Your task to perform on an android device: turn smart compose on in the gmail app Image 0: 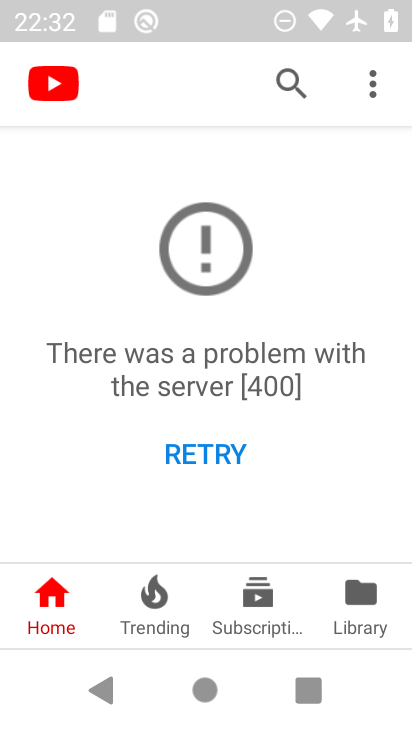
Step 0: press home button
Your task to perform on an android device: turn smart compose on in the gmail app Image 1: 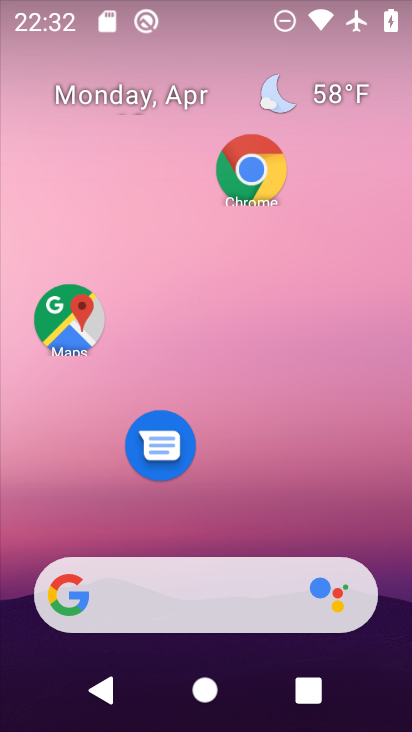
Step 1: drag from (212, 537) to (204, 181)
Your task to perform on an android device: turn smart compose on in the gmail app Image 2: 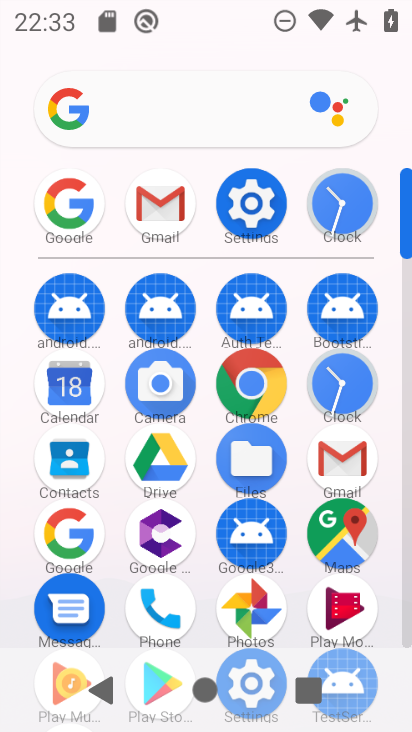
Step 2: click (161, 219)
Your task to perform on an android device: turn smart compose on in the gmail app Image 3: 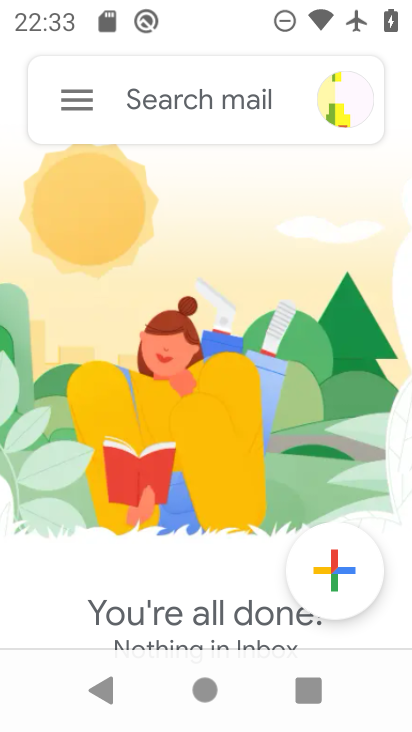
Step 3: click (64, 95)
Your task to perform on an android device: turn smart compose on in the gmail app Image 4: 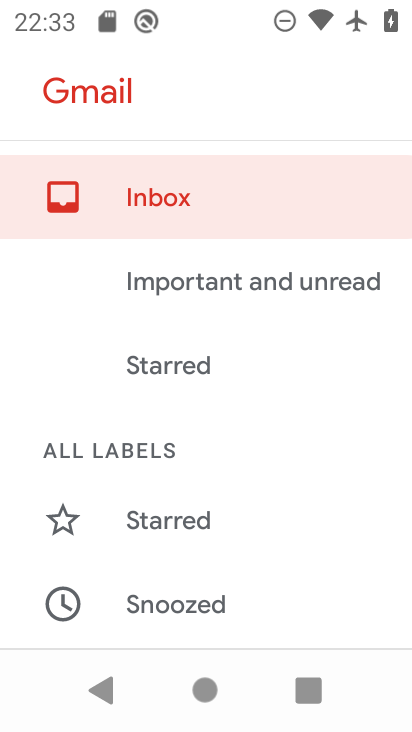
Step 4: drag from (215, 426) to (219, 180)
Your task to perform on an android device: turn smart compose on in the gmail app Image 5: 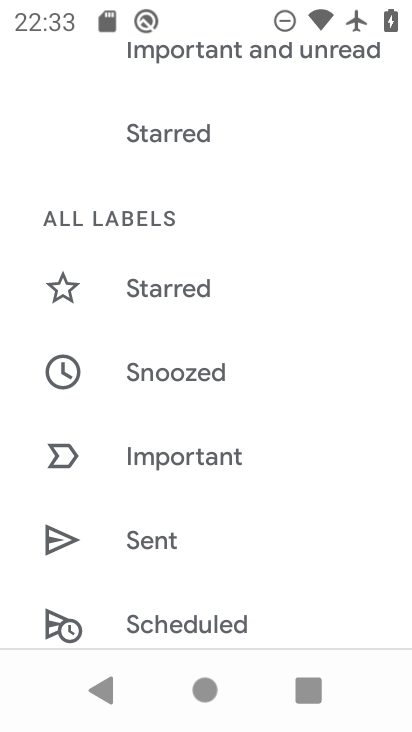
Step 5: drag from (234, 489) to (270, 217)
Your task to perform on an android device: turn smart compose on in the gmail app Image 6: 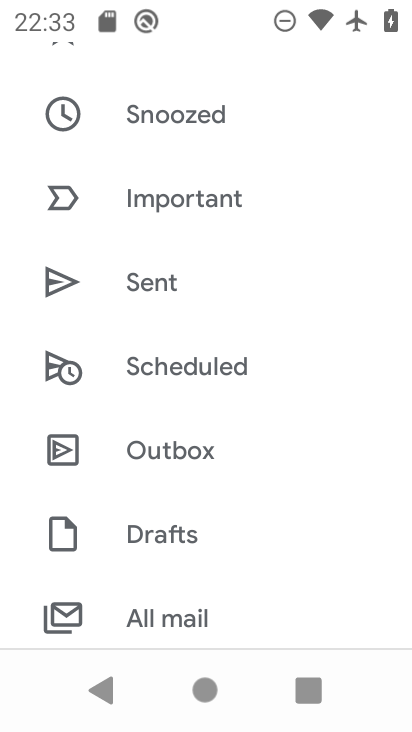
Step 6: drag from (260, 496) to (269, 243)
Your task to perform on an android device: turn smart compose on in the gmail app Image 7: 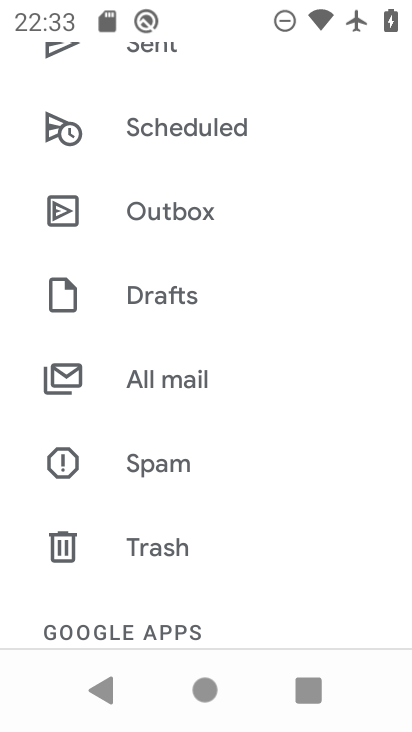
Step 7: drag from (228, 543) to (237, 242)
Your task to perform on an android device: turn smart compose on in the gmail app Image 8: 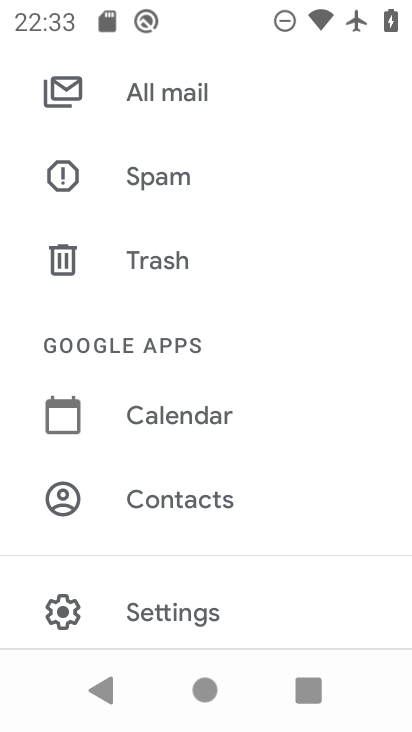
Step 8: click (221, 598)
Your task to perform on an android device: turn smart compose on in the gmail app Image 9: 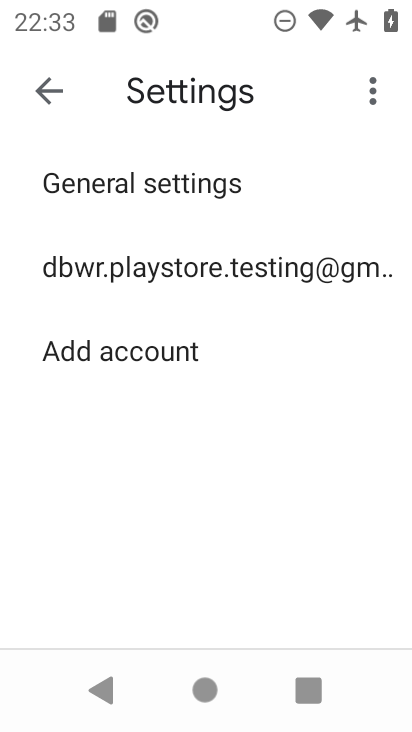
Step 9: click (225, 278)
Your task to perform on an android device: turn smart compose on in the gmail app Image 10: 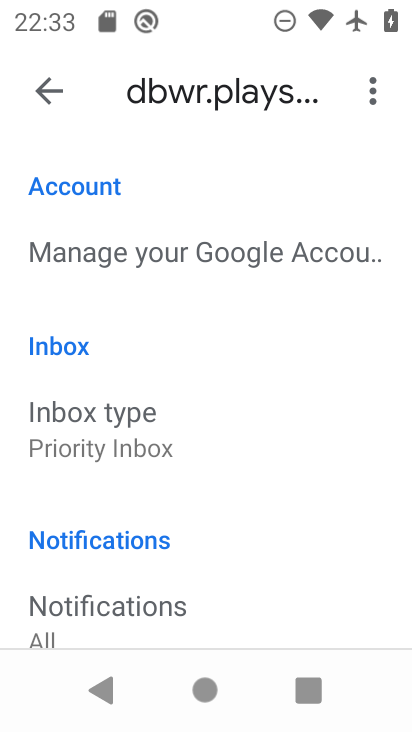
Step 10: task complete